Your task to perform on an android device: Go to Google Image 0: 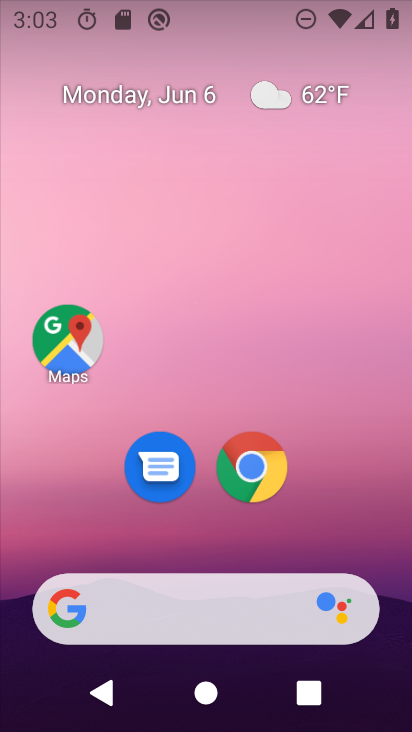
Step 0: click (208, 597)
Your task to perform on an android device: Go to Google Image 1: 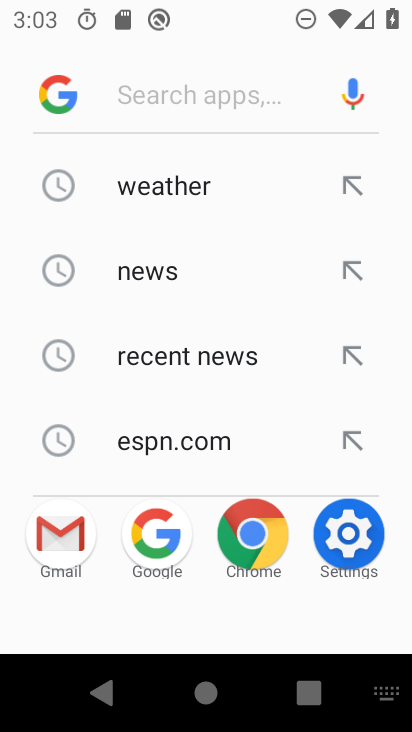
Step 1: task complete